Your task to perform on an android device: Open Chrome and go to settings Image 0: 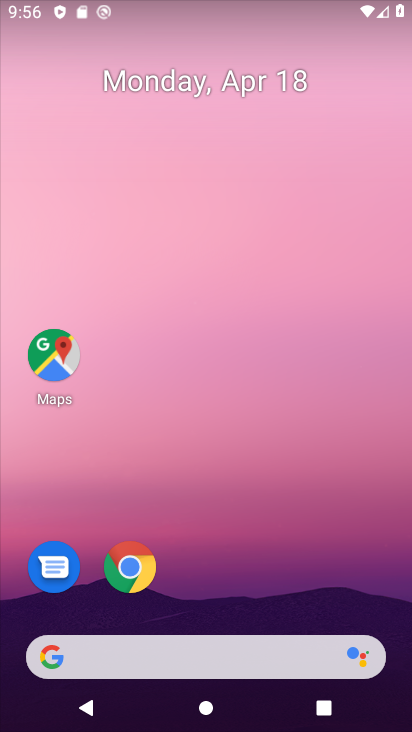
Step 0: click (132, 574)
Your task to perform on an android device: Open Chrome and go to settings Image 1: 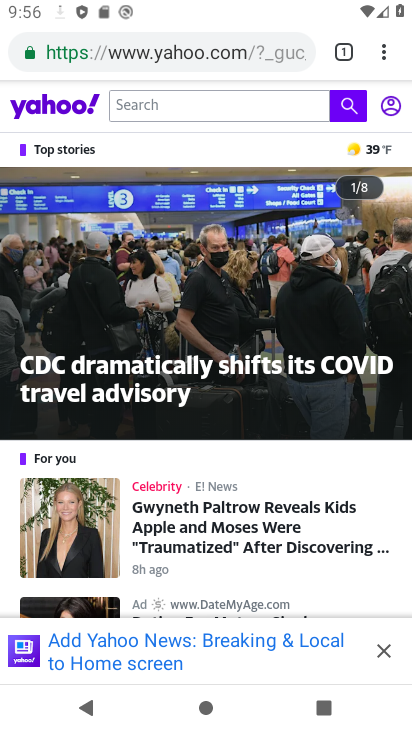
Step 1: click (384, 53)
Your task to perform on an android device: Open Chrome and go to settings Image 2: 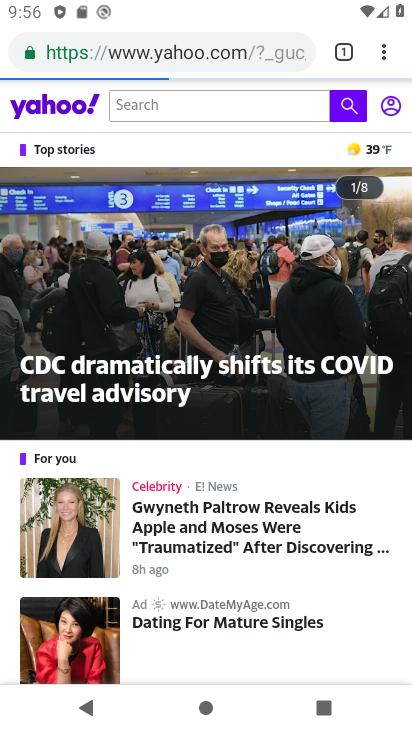
Step 2: click (384, 53)
Your task to perform on an android device: Open Chrome and go to settings Image 3: 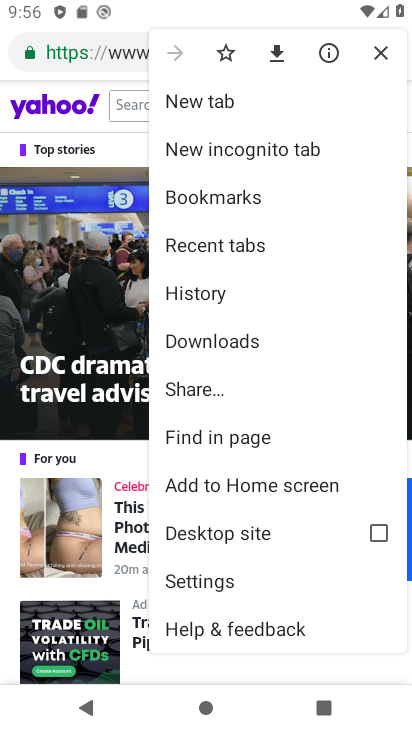
Step 3: click (195, 582)
Your task to perform on an android device: Open Chrome and go to settings Image 4: 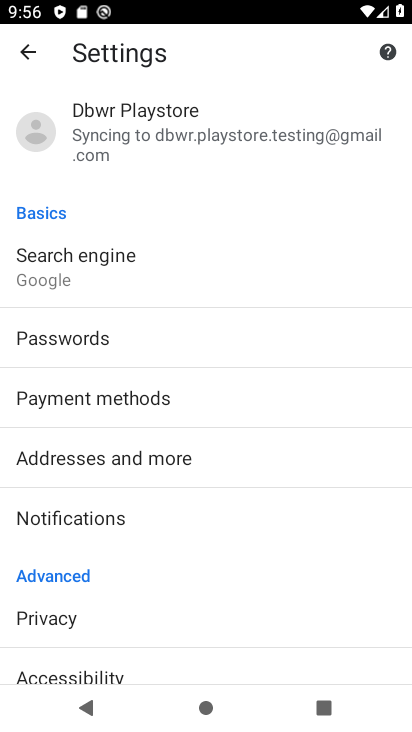
Step 4: task complete